Your task to perform on an android device: See recent photos Image 0: 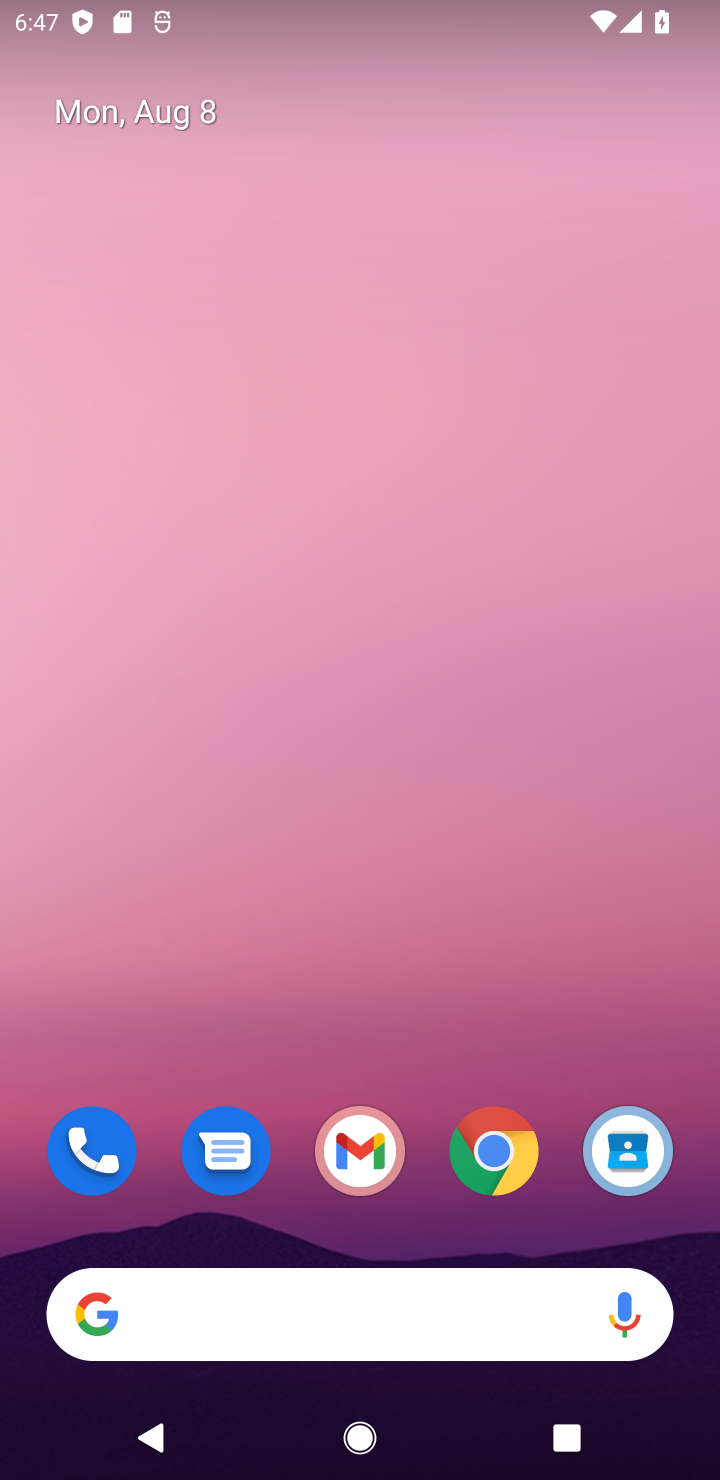
Step 0: drag from (381, 247) to (422, 62)
Your task to perform on an android device: See recent photos Image 1: 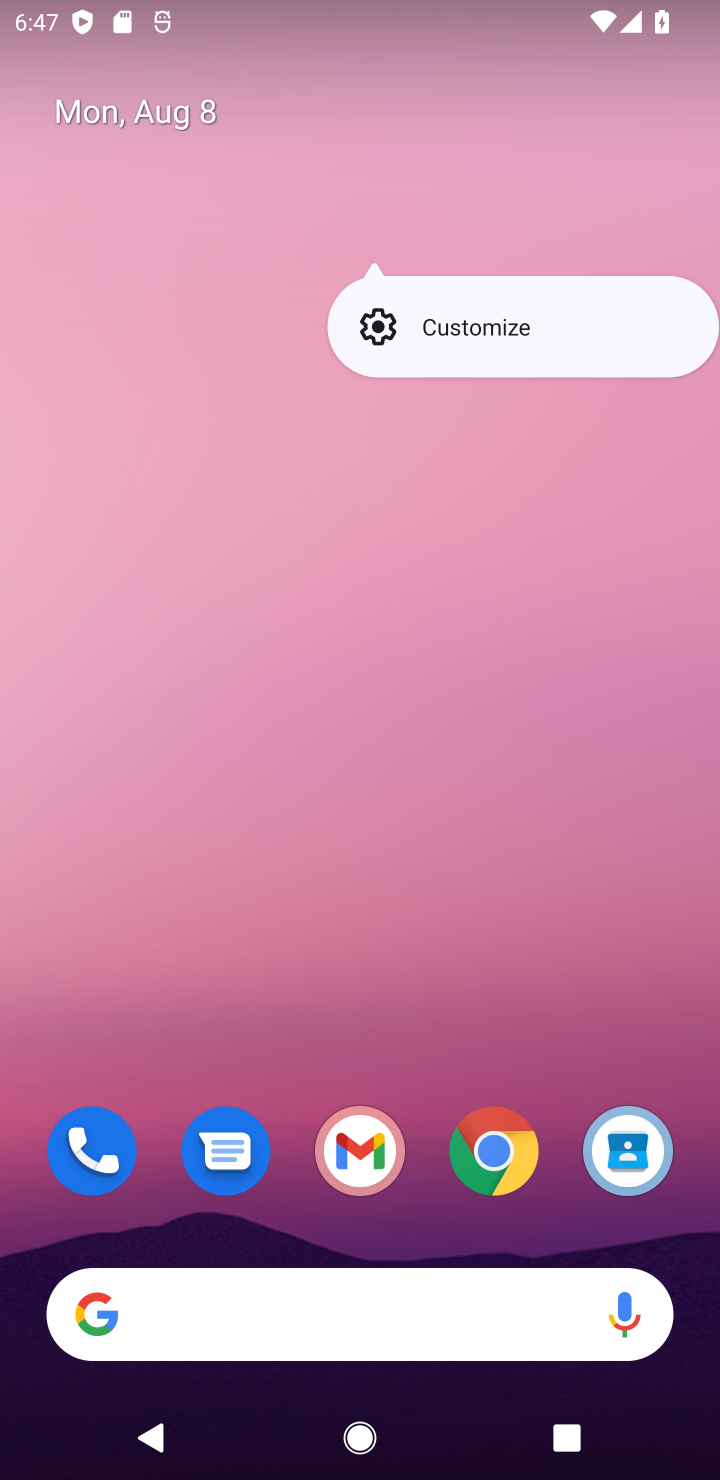
Step 1: click (353, 716)
Your task to perform on an android device: See recent photos Image 2: 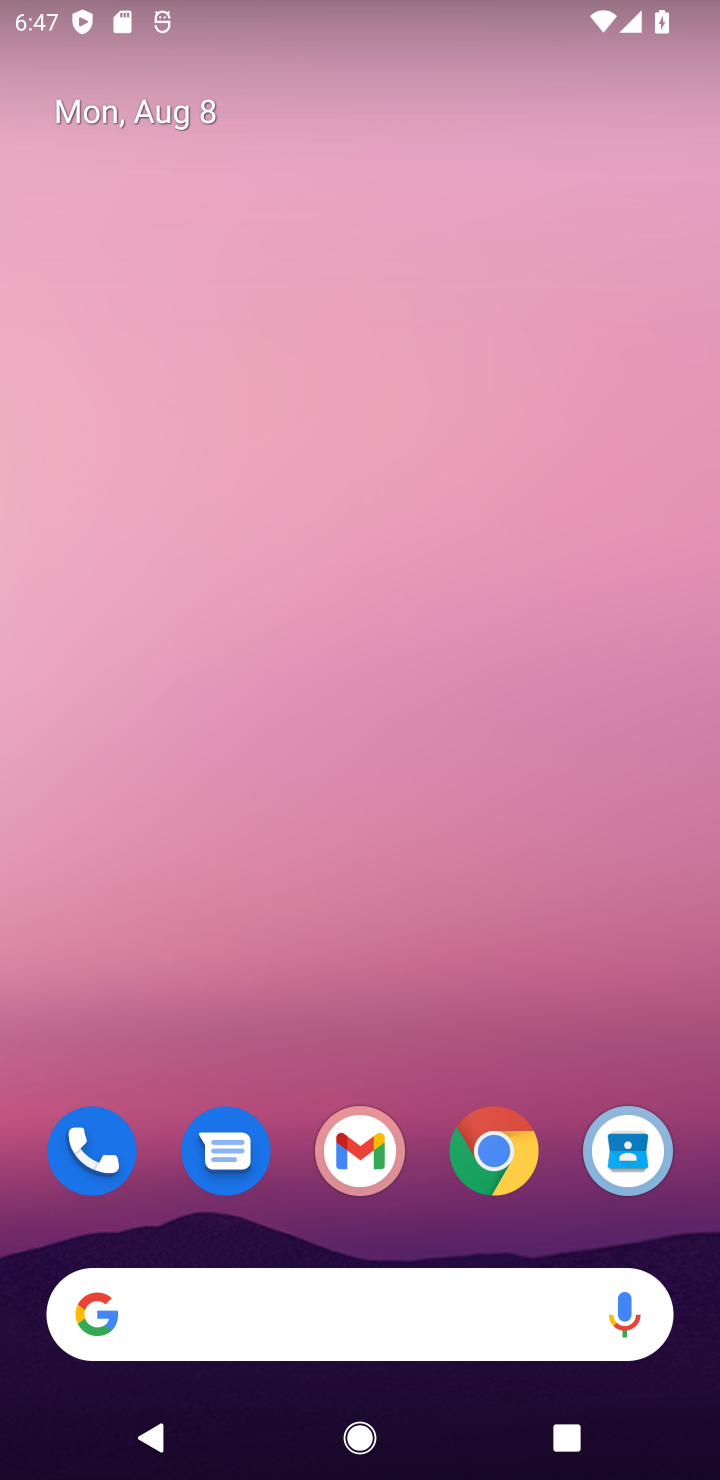
Step 2: drag from (371, 1080) to (366, 168)
Your task to perform on an android device: See recent photos Image 3: 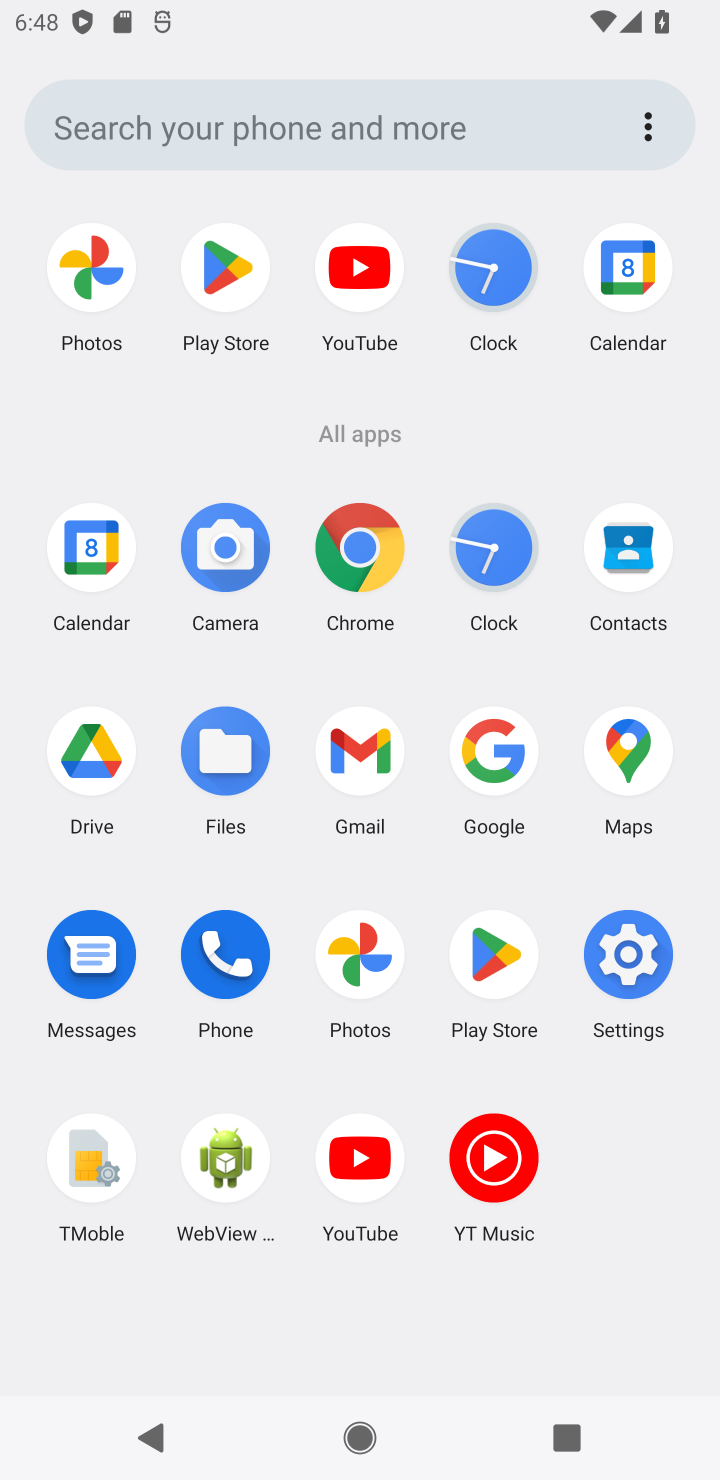
Step 3: click (352, 936)
Your task to perform on an android device: See recent photos Image 4: 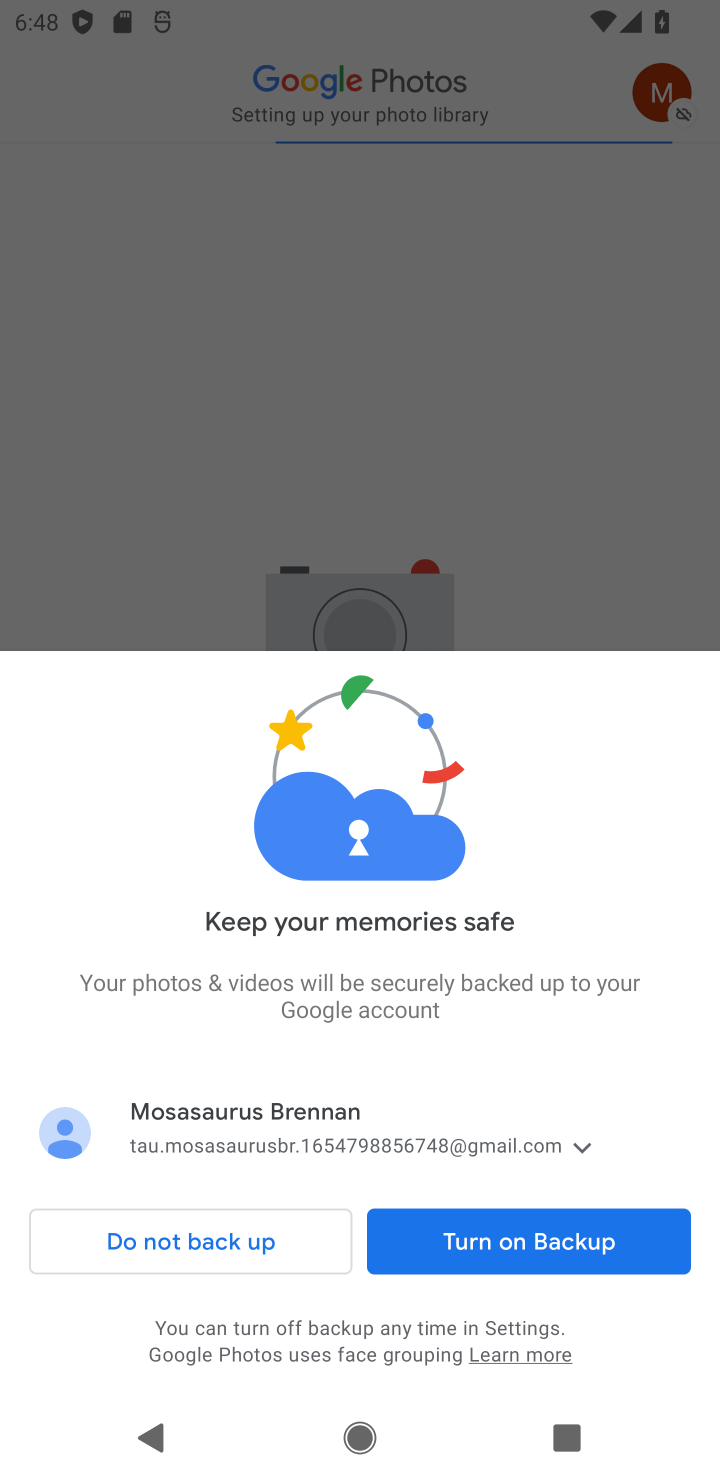
Step 4: click (252, 1242)
Your task to perform on an android device: See recent photos Image 5: 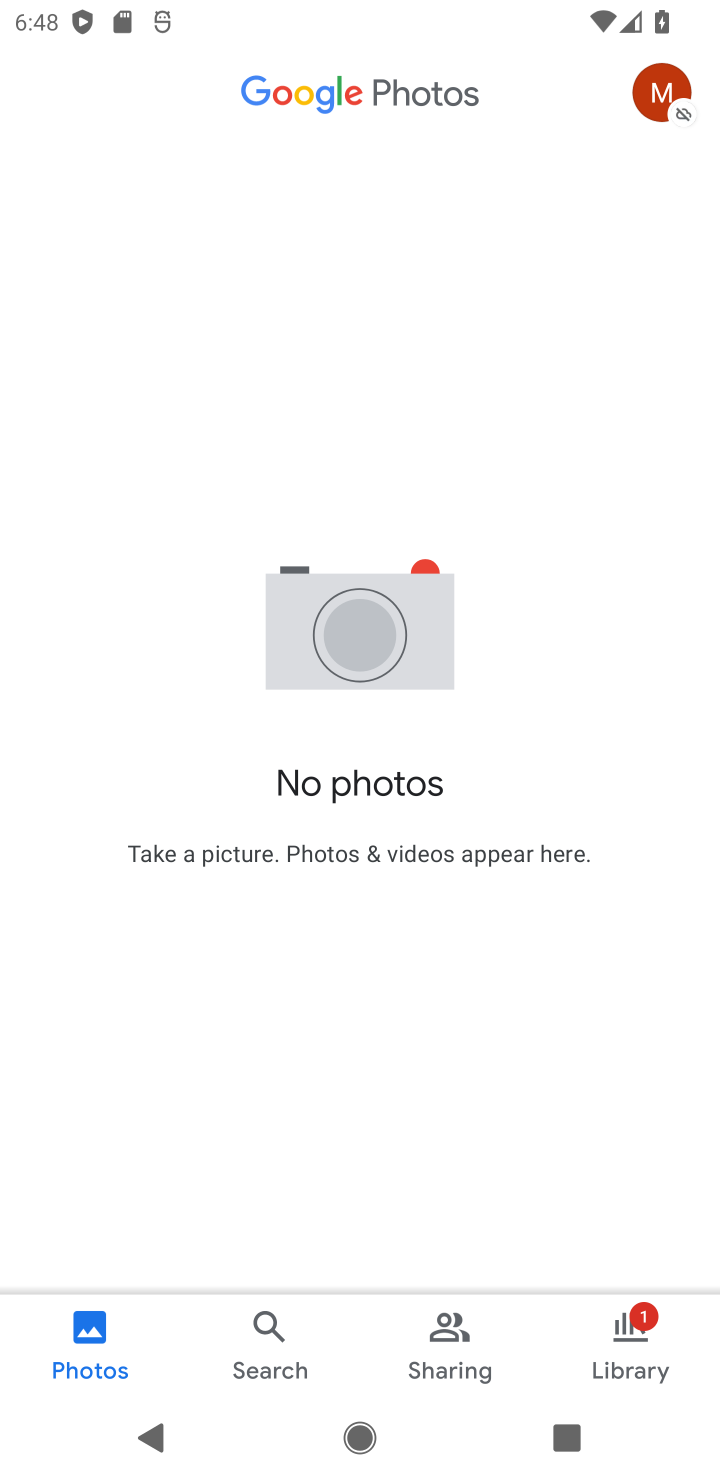
Step 5: task complete